Your task to perform on an android device: delete location history Image 0: 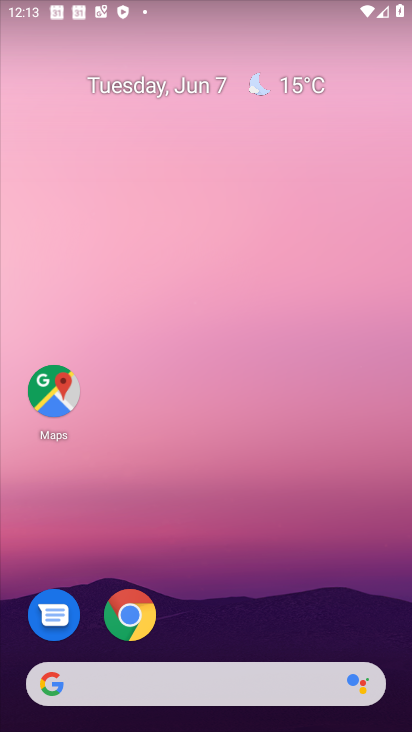
Step 0: drag from (217, 628) to (232, 13)
Your task to perform on an android device: delete location history Image 1: 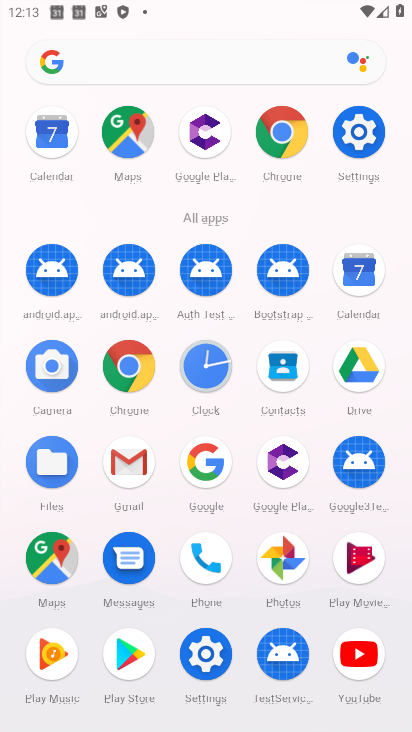
Step 1: click (364, 213)
Your task to perform on an android device: delete location history Image 2: 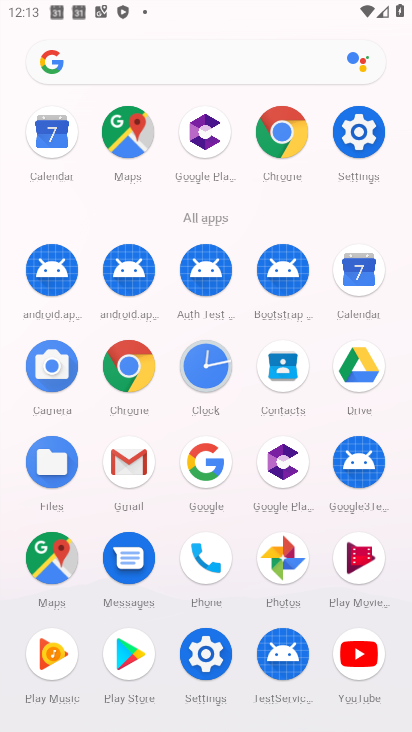
Step 2: click (350, 144)
Your task to perform on an android device: delete location history Image 3: 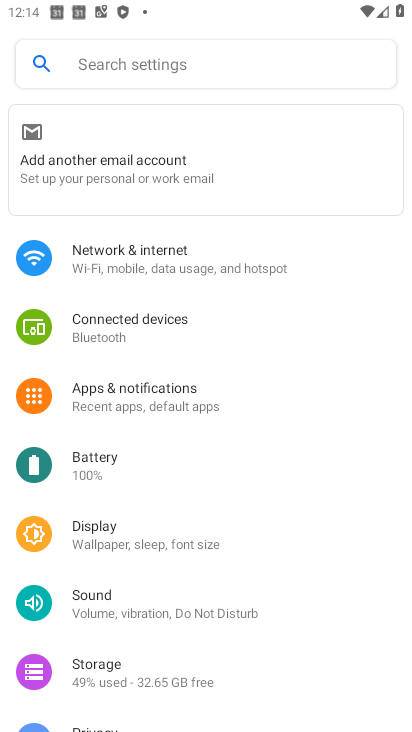
Step 3: drag from (179, 661) to (223, 249)
Your task to perform on an android device: delete location history Image 4: 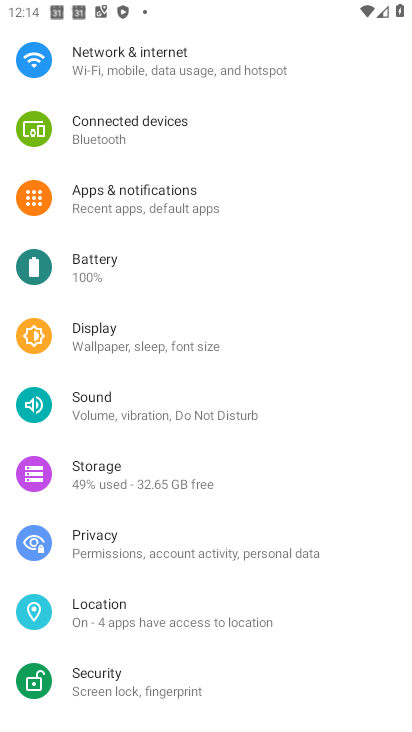
Step 4: click (114, 619)
Your task to perform on an android device: delete location history Image 5: 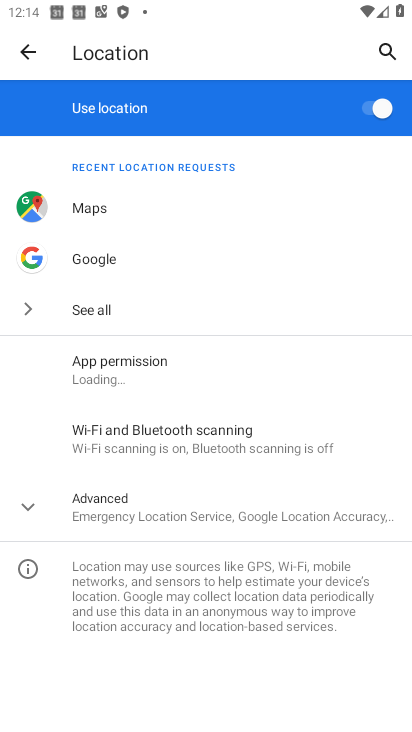
Step 5: click (133, 509)
Your task to perform on an android device: delete location history Image 6: 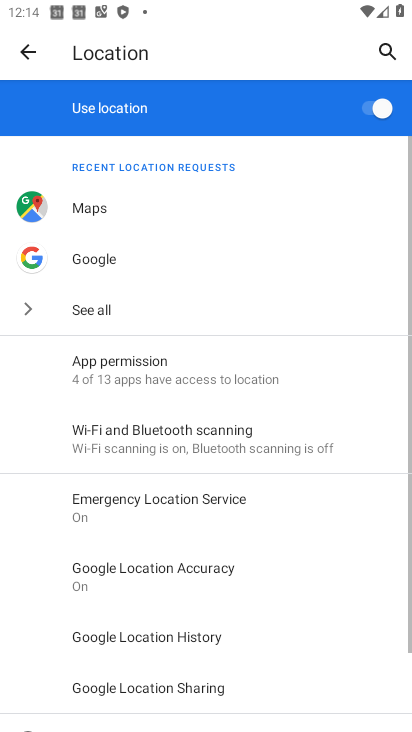
Step 6: click (127, 638)
Your task to perform on an android device: delete location history Image 7: 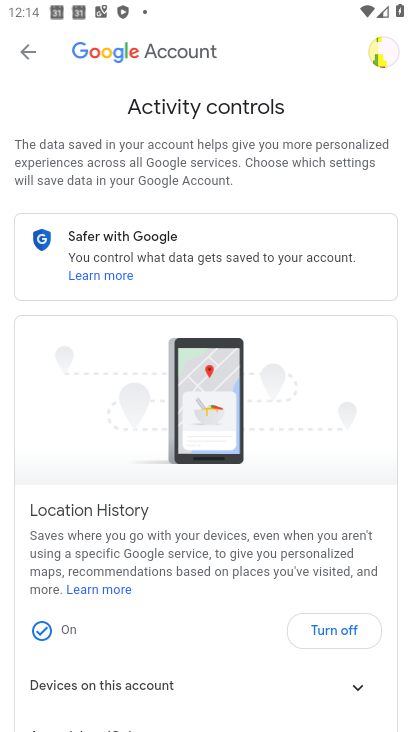
Step 7: drag from (235, 560) to (194, 204)
Your task to perform on an android device: delete location history Image 8: 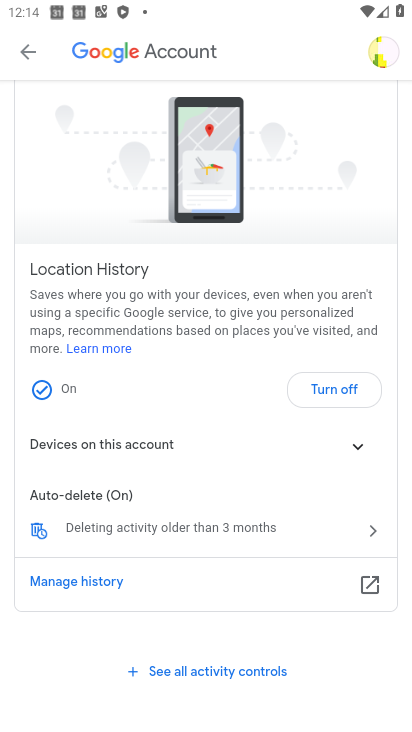
Step 8: click (72, 580)
Your task to perform on an android device: delete location history Image 9: 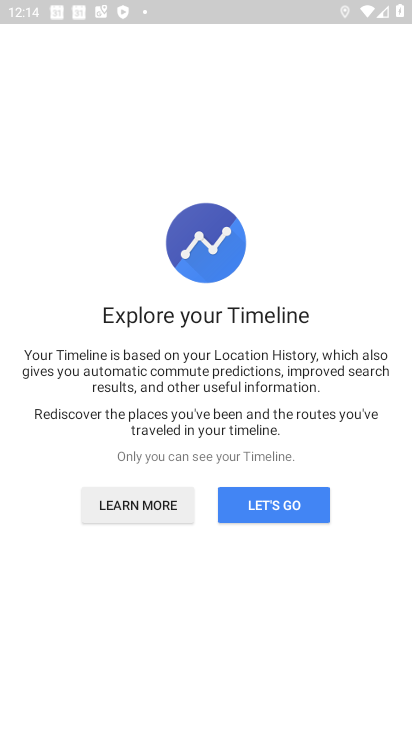
Step 9: click (262, 523)
Your task to perform on an android device: delete location history Image 10: 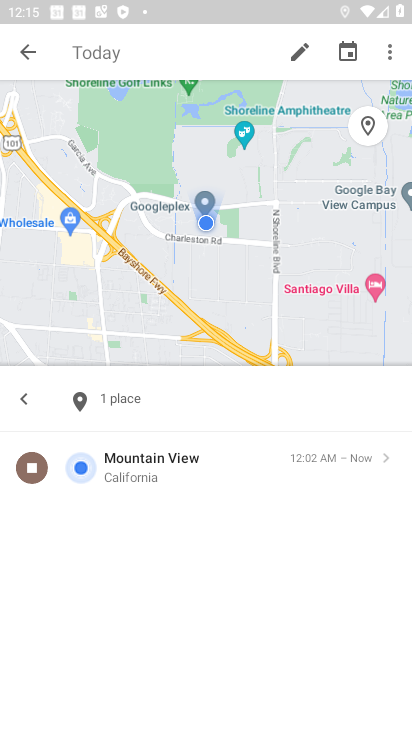
Step 10: click (386, 51)
Your task to perform on an android device: delete location history Image 11: 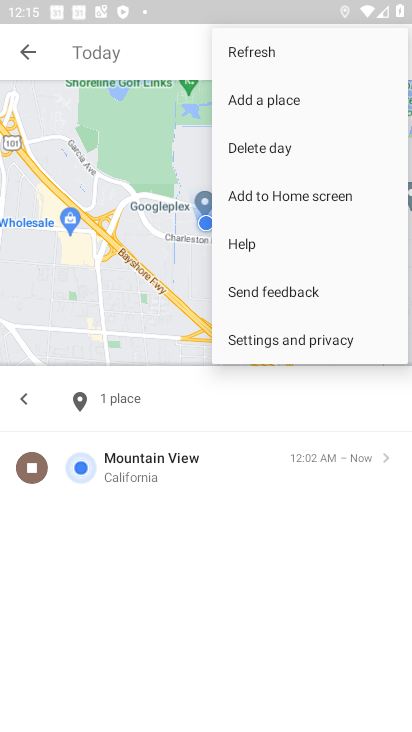
Step 11: click (311, 338)
Your task to perform on an android device: delete location history Image 12: 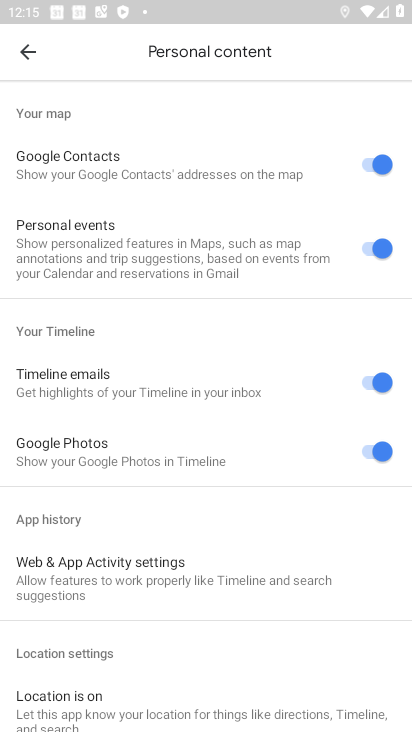
Step 12: drag from (202, 602) to (235, 82)
Your task to perform on an android device: delete location history Image 13: 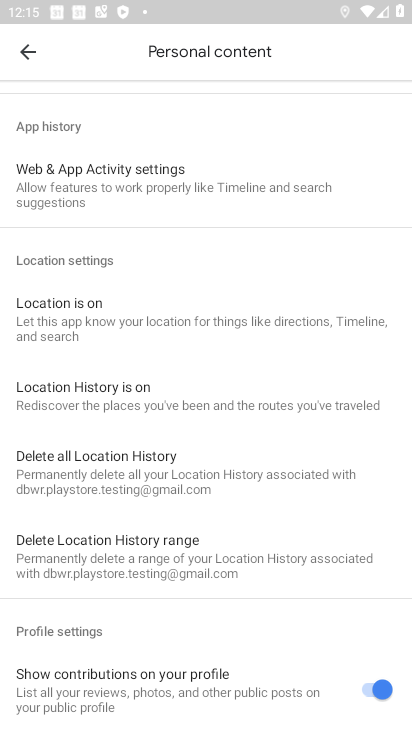
Step 13: click (92, 485)
Your task to perform on an android device: delete location history Image 14: 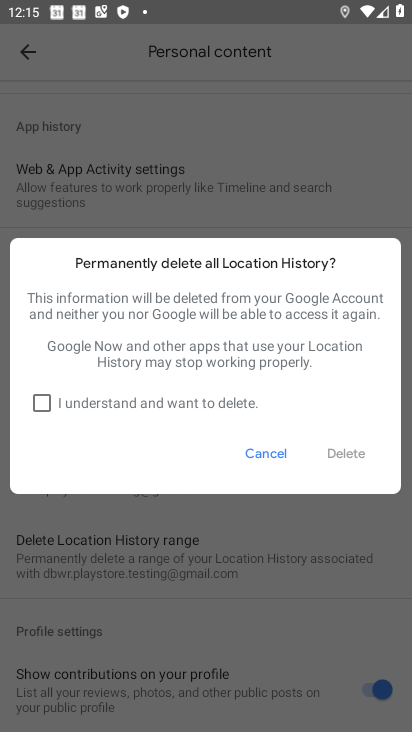
Step 14: click (39, 397)
Your task to perform on an android device: delete location history Image 15: 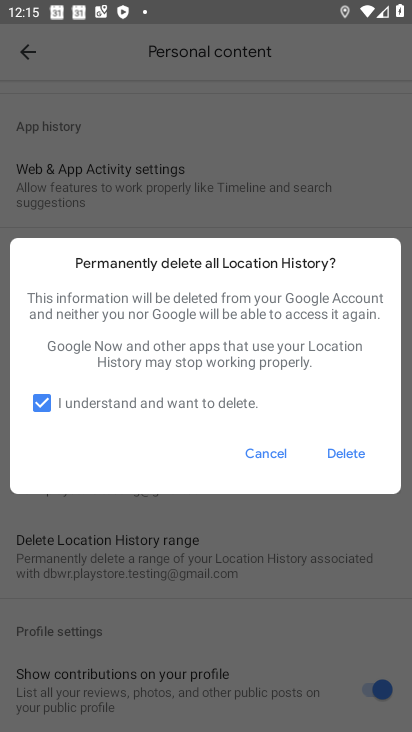
Step 15: click (358, 457)
Your task to perform on an android device: delete location history Image 16: 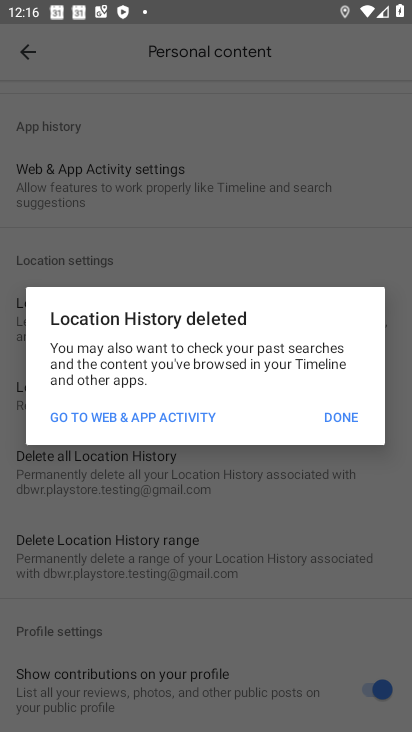
Step 16: click (342, 424)
Your task to perform on an android device: delete location history Image 17: 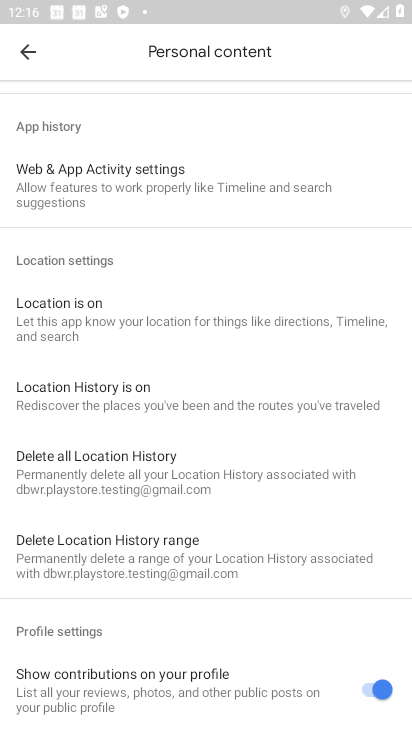
Step 17: task complete